Your task to perform on an android device: toggle improve location accuracy Image 0: 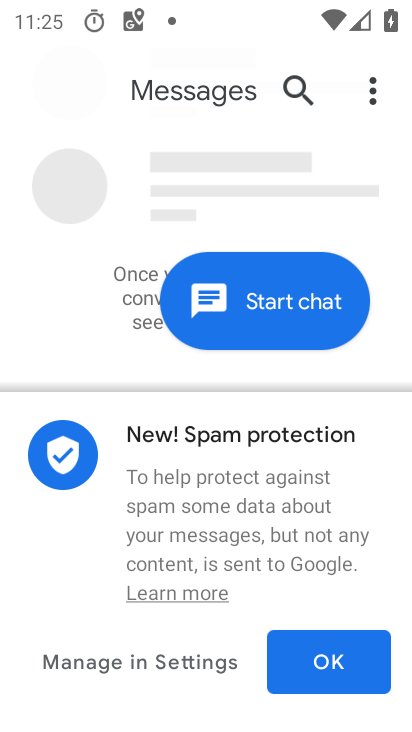
Step 0: press home button
Your task to perform on an android device: toggle improve location accuracy Image 1: 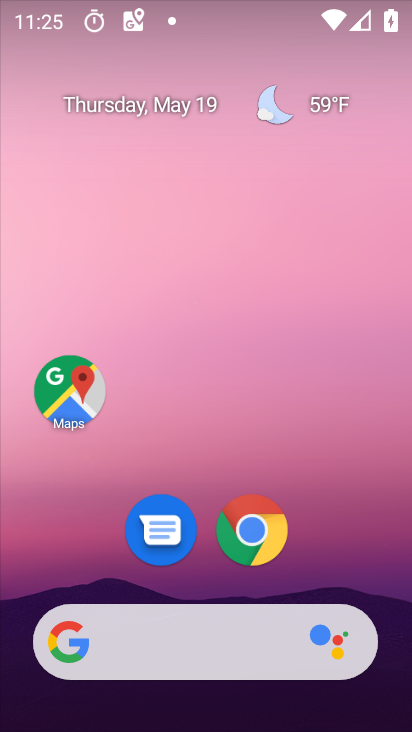
Step 1: drag from (323, 541) to (261, 190)
Your task to perform on an android device: toggle improve location accuracy Image 2: 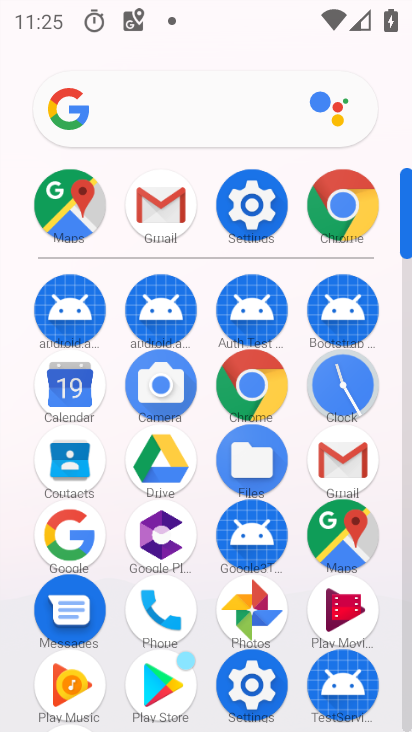
Step 2: click (275, 703)
Your task to perform on an android device: toggle improve location accuracy Image 3: 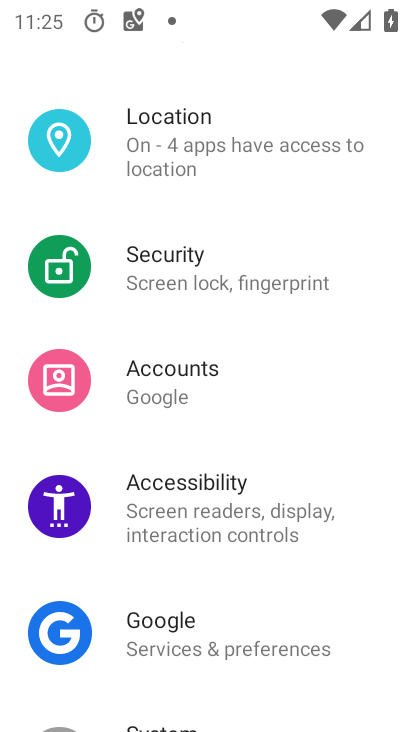
Step 3: drag from (280, 169) to (281, 393)
Your task to perform on an android device: toggle improve location accuracy Image 4: 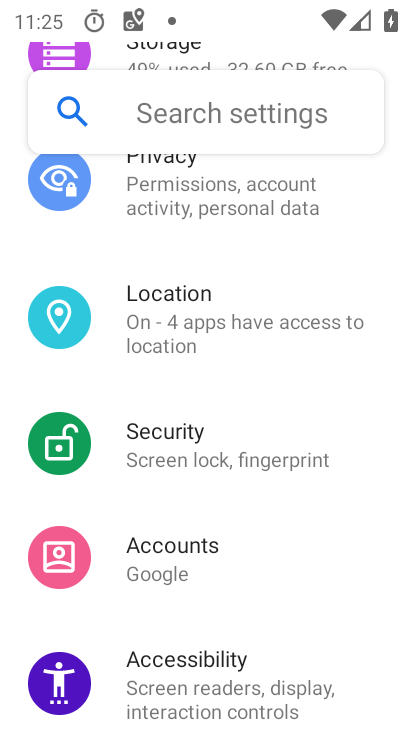
Step 4: click (236, 331)
Your task to perform on an android device: toggle improve location accuracy Image 5: 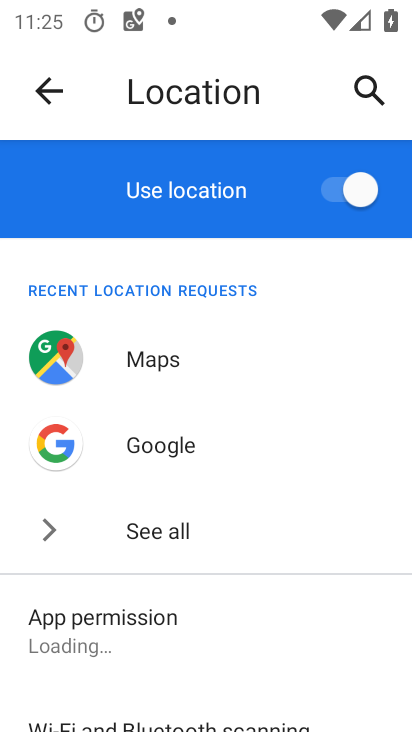
Step 5: drag from (248, 688) to (293, 320)
Your task to perform on an android device: toggle improve location accuracy Image 6: 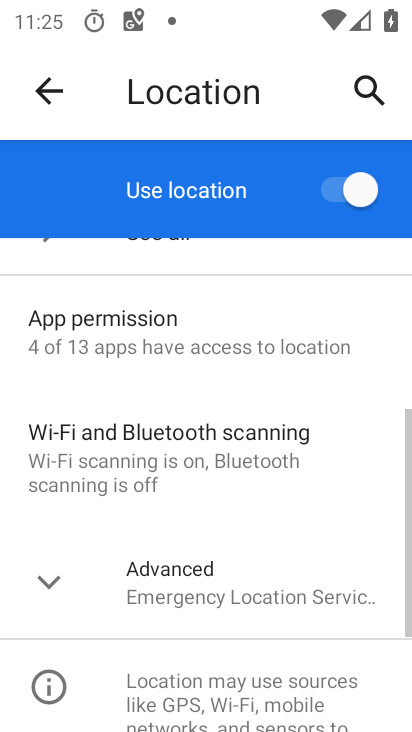
Step 6: drag from (290, 548) to (264, 213)
Your task to perform on an android device: toggle improve location accuracy Image 7: 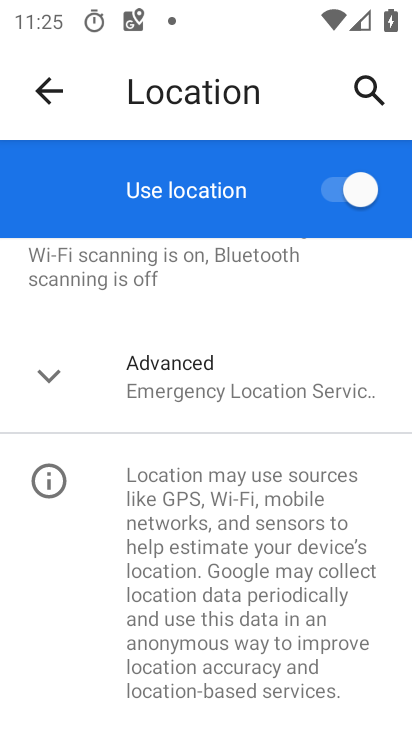
Step 7: click (201, 388)
Your task to perform on an android device: toggle improve location accuracy Image 8: 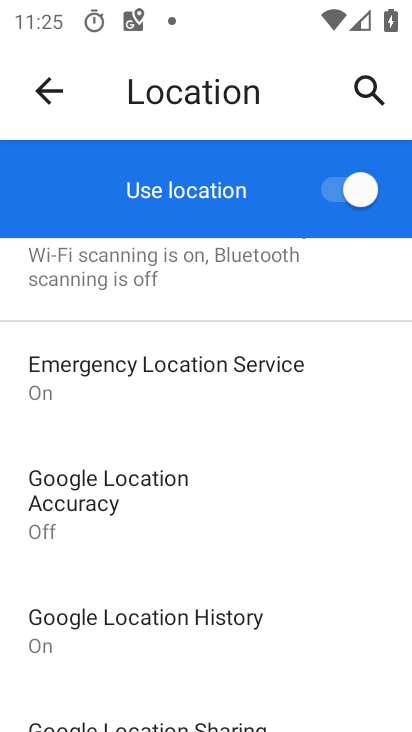
Step 8: click (127, 495)
Your task to perform on an android device: toggle improve location accuracy Image 9: 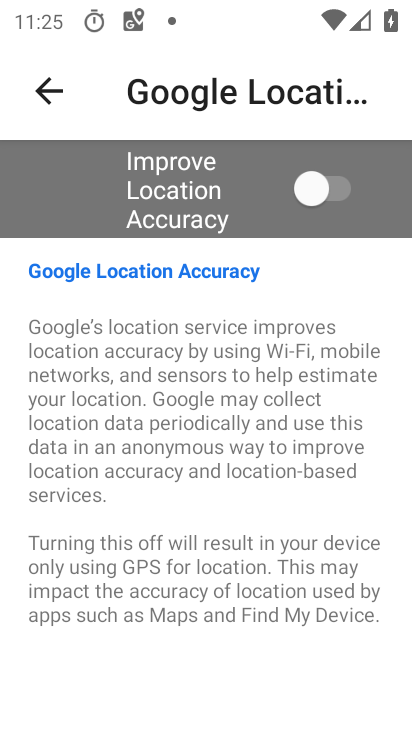
Step 9: click (327, 183)
Your task to perform on an android device: toggle improve location accuracy Image 10: 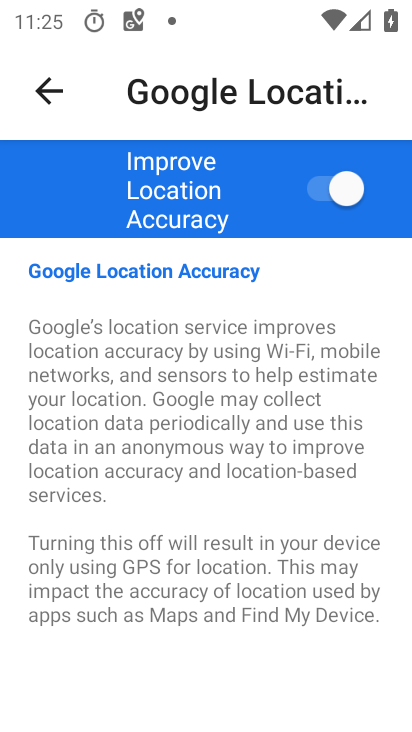
Step 10: task complete